Your task to perform on an android device: See recent photos Image 0: 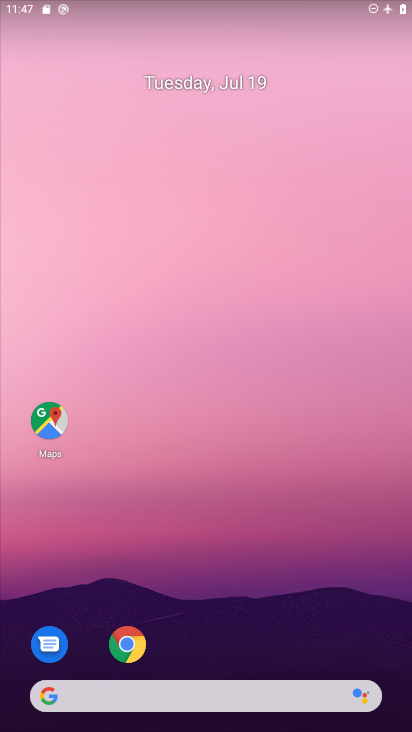
Step 0: drag from (54, 591) to (265, 0)
Your task to perform on an android device: See recent photos Image 1: 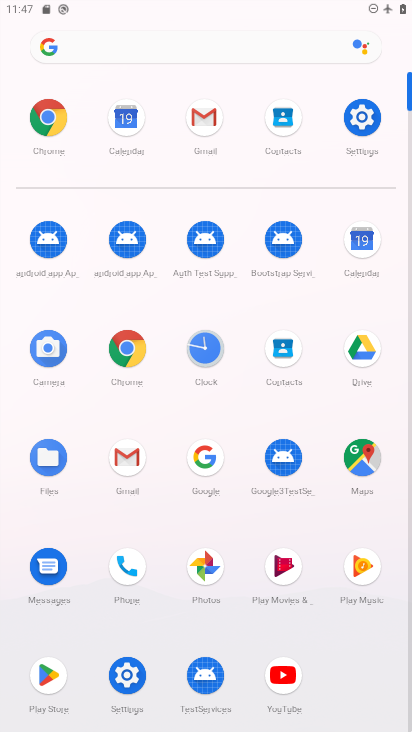
Step 1: click (203, 571)
Your task to perform on an android device: See recent photos Image 2: 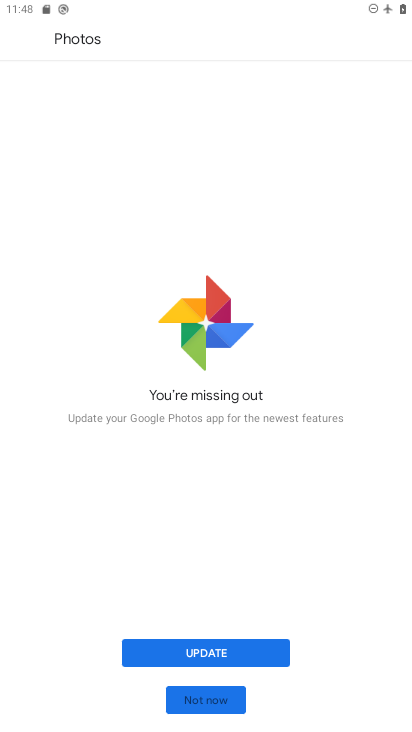
Step 2: task complete